Your task to perform on an android device: Show me productivity apps on the Play Store Image 0: 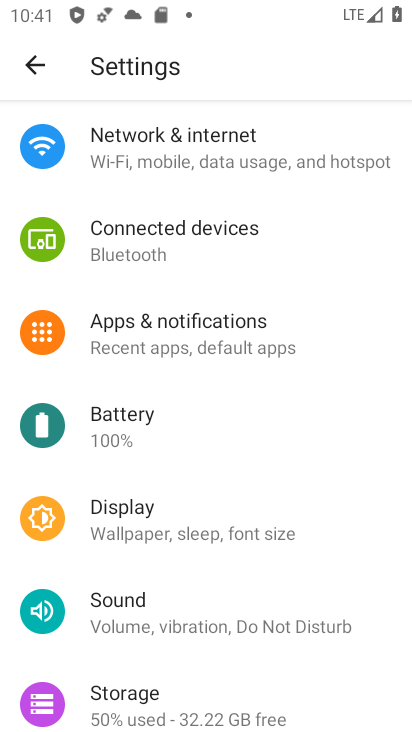
Step 0: press home button
Your task to perform on an android device: Show me productivity apps on the Play Store Image 1: 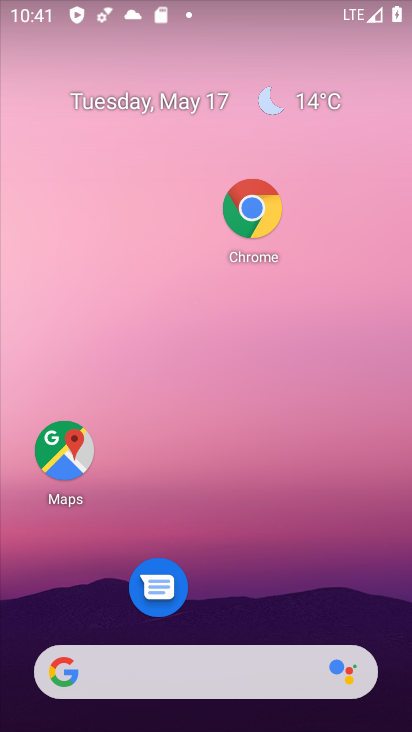
Step 1: drag from (294, 588) to (269, 93)
Your task to perform on an android device: Show me productivity apps on the Play Store Image 2: 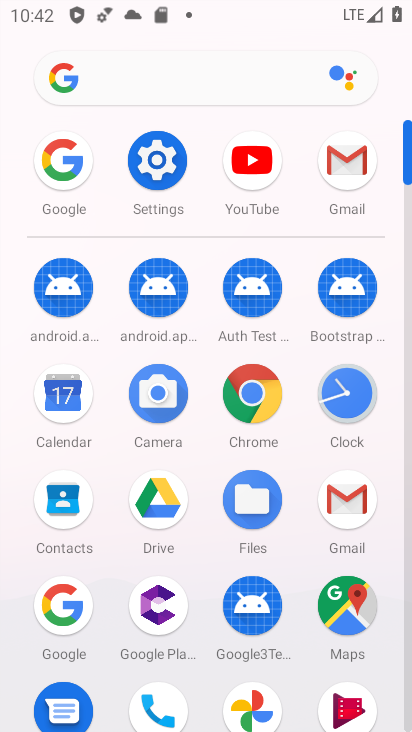
Step 2: drag from (199, 580) to (195, 220)
Your task to perform on an android device: Show me productivity apps on the Play Store Image 3: 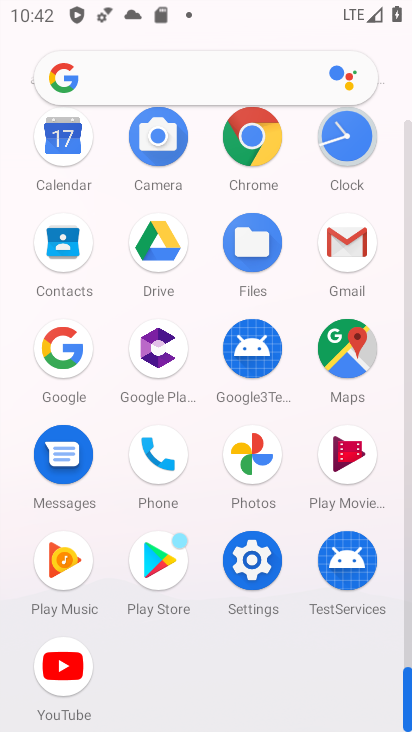
Step 3: click (169, 560)
Your task to perform on an android device: Show me productivity apps on the Play Store Image 4: 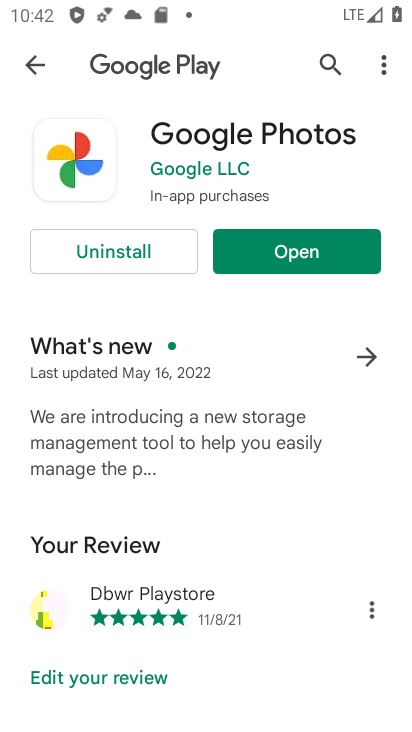
Step 4: click (39, 72)
Your task to perform on an android device: Show me productivity apps on the Play Store Image 5: 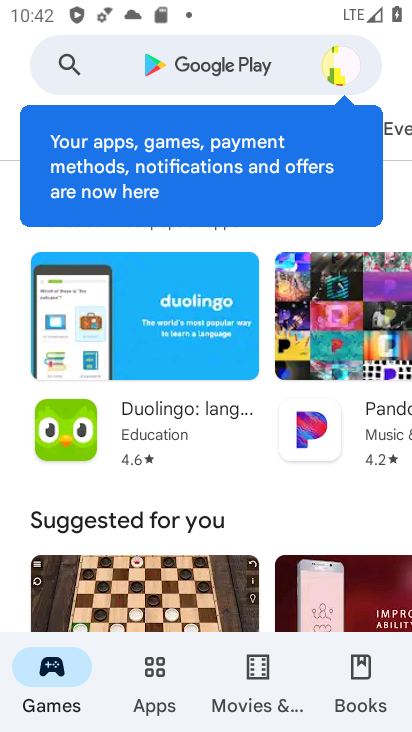
Step 5: click (136, 71)
Your task to perform on an android device: Show me productivity apps on the Play Store Image 6: 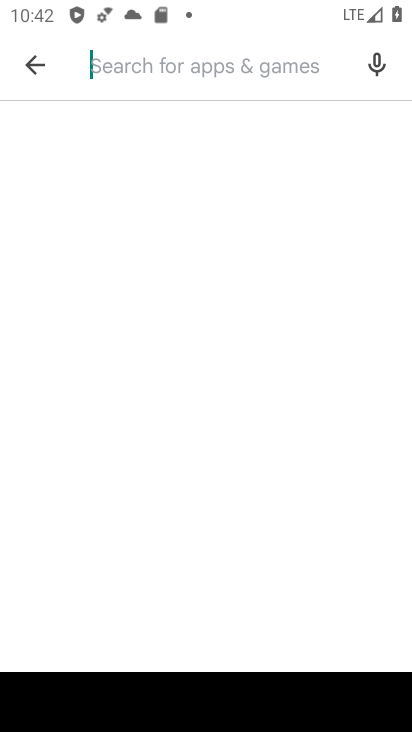
Step 6: type "productivity app"
Your task to perform on an android device: Show me productivity apps on the Play Store Image 7: 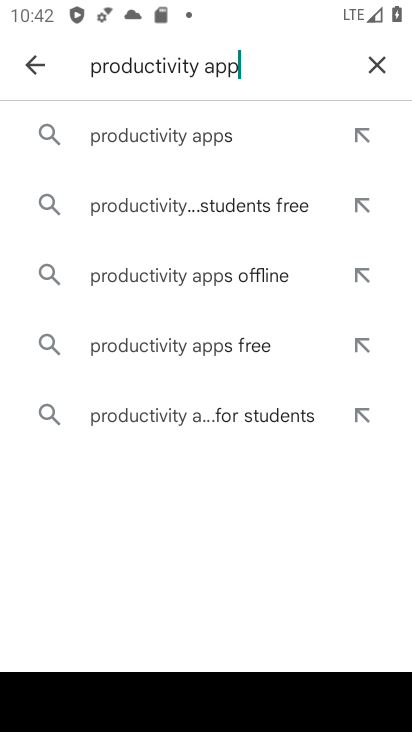
Step 7: click (227, 129)
Your task to perform on an android device: Show me productivity apps on the Play Store Image 8: 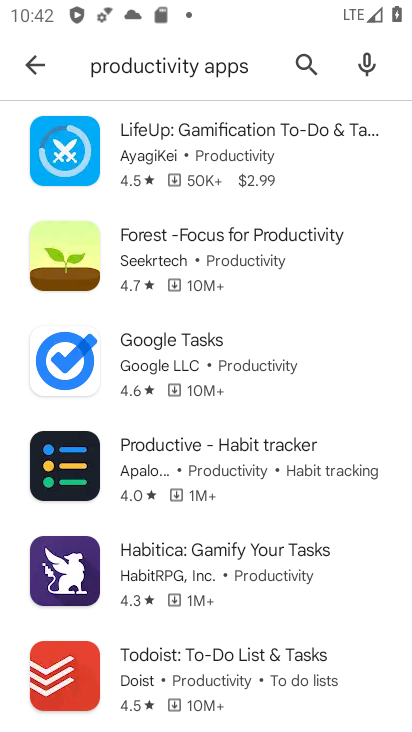
Step 8: task complete